Your task to perform on an android device: Go to network settings Image 0: 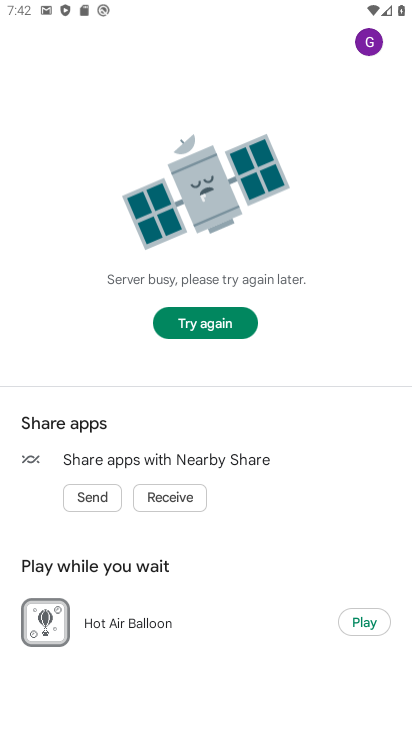
Step 0: press home button
Your task to perform on an android device: Go to network settings Image 1: 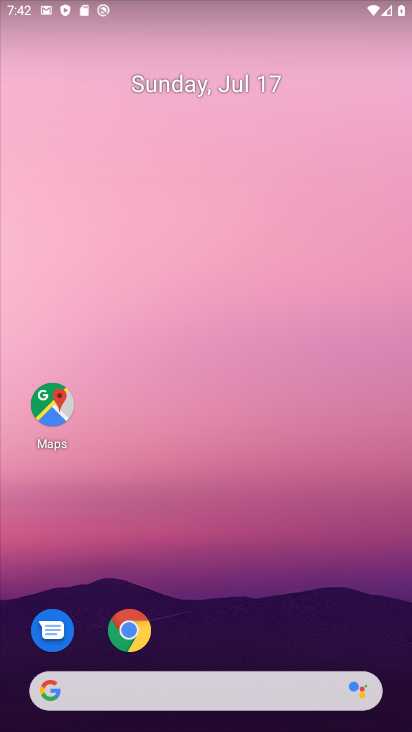
Step 1: drag from (201, 585) to (253, 297)
Your task to perform on an android device: Go to network settings Image 2: 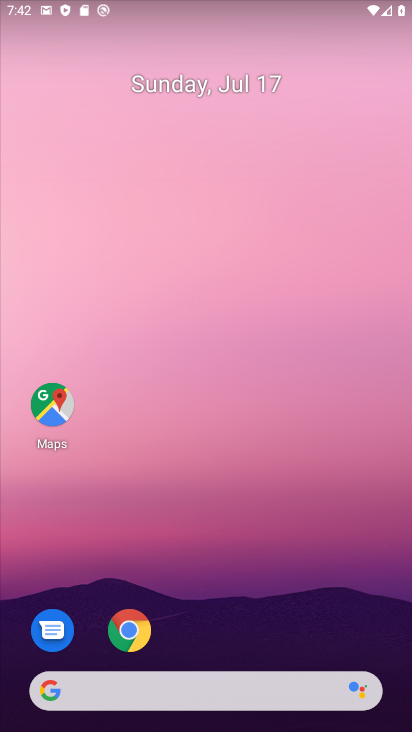
Step 2: drag from (237, 572) to (231, 250)
Your task to perform on an android device: Go to network settings Image 3: 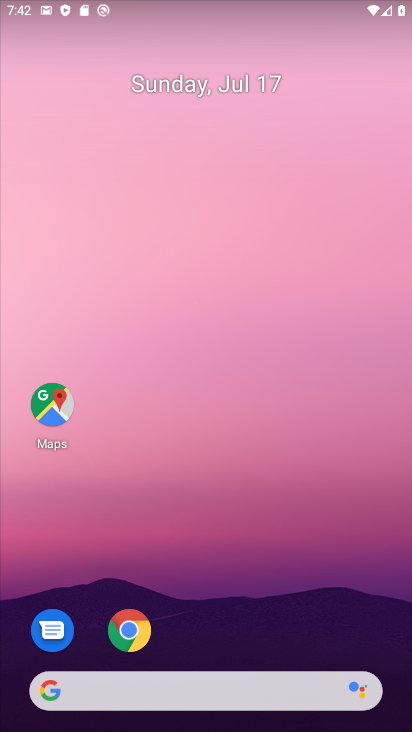
Step 3: drag from (237, 566) to (263, 172)
Your task to perform on an android device: Go to network settings Image 4: 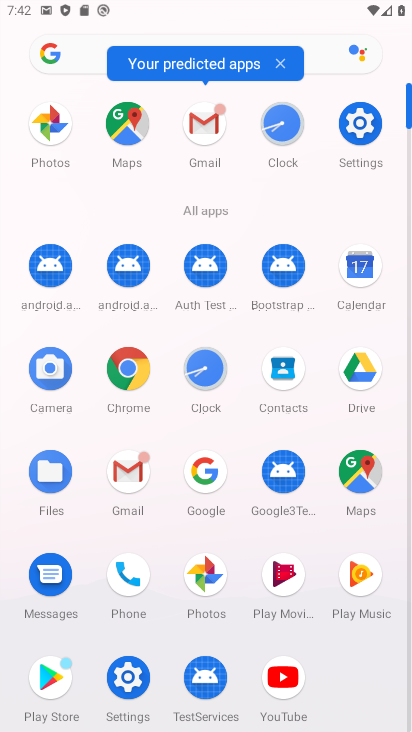
Step 4: click (353, 124)
Your task to perform on an android device: Go to network settings Image 5: 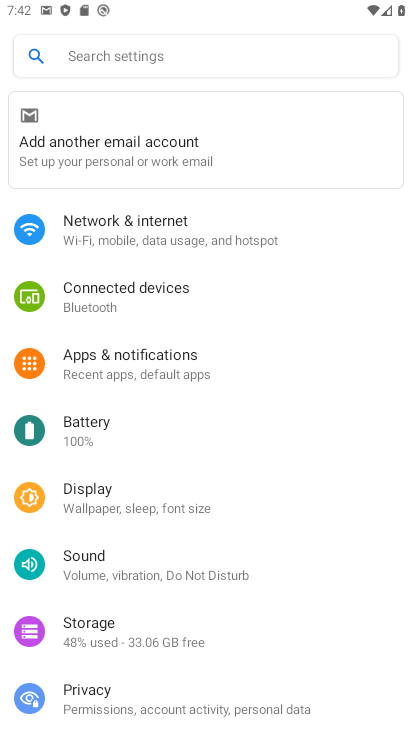
Step 5: click (102, 224)
Your task to perform on an android device: Go to network settings Image 6: 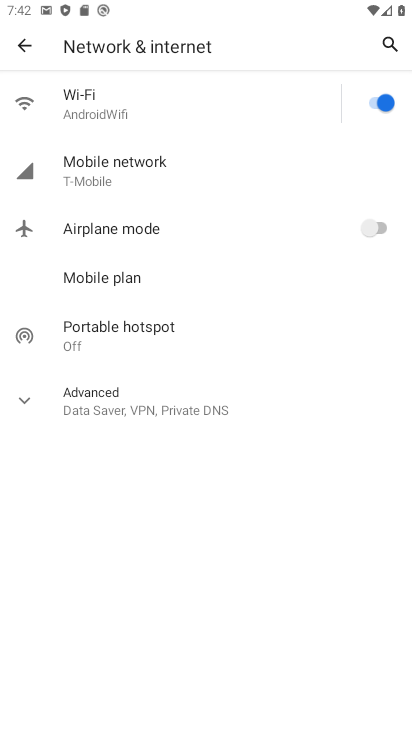
Step 6: task complete